Your task to perform on an android device: allow cookies in the chrome app Image 0: 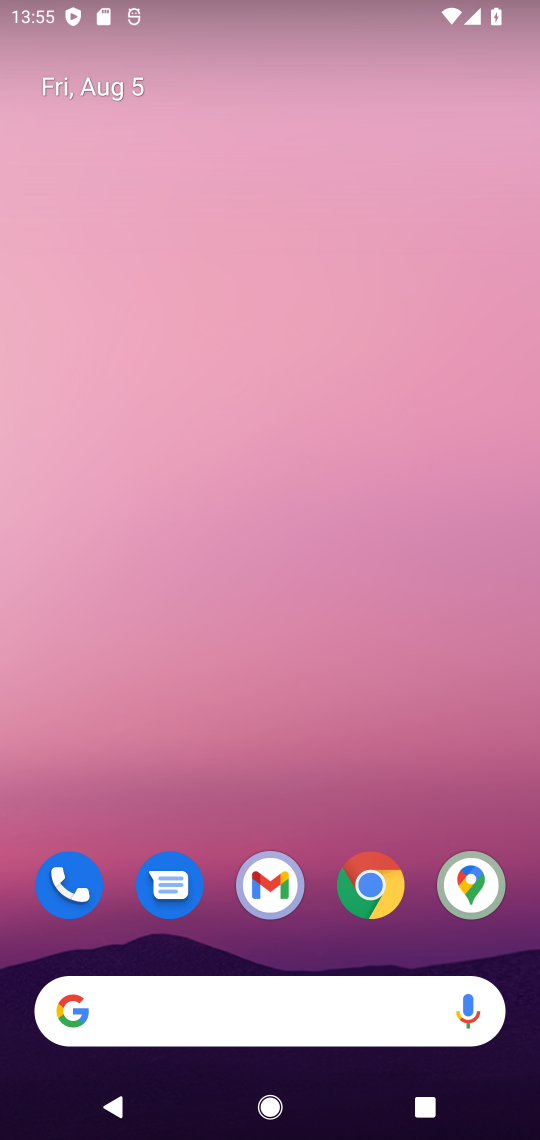
Step 0: click (374, 904)
Your task to perform on an android device: allow cookies in the chrome app Image 1: 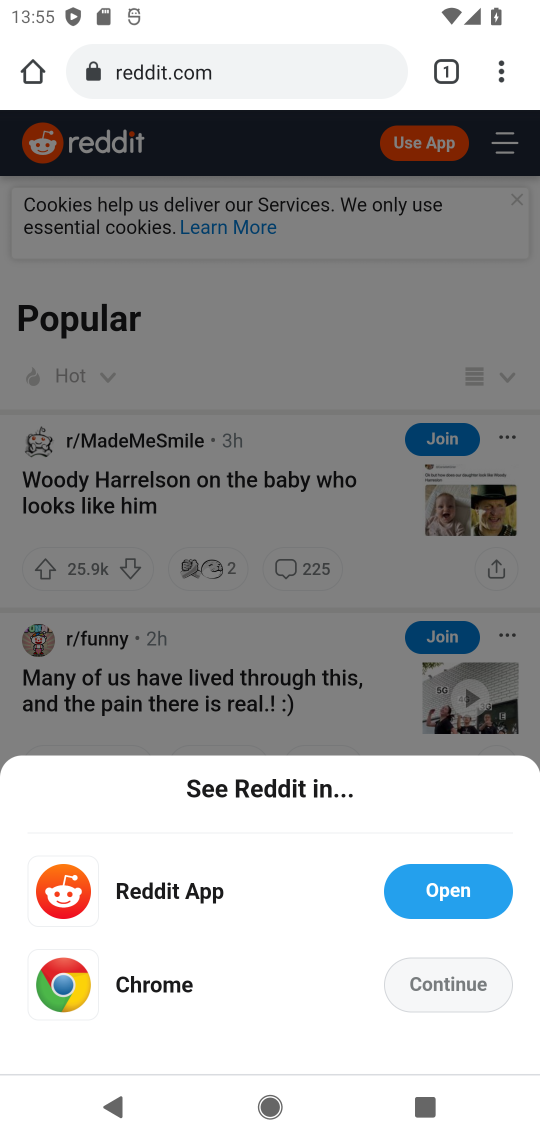
Step 1: click (429, 978)
Your task to perform on an android device: allow cookies in the chrome app Image 2: 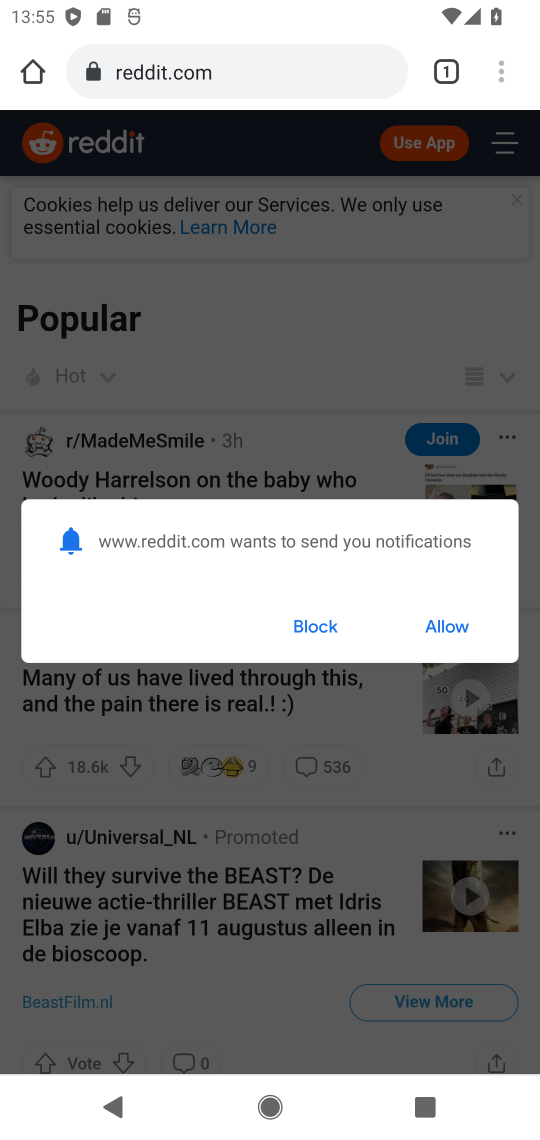
Step 2: click (288, 624)
Your task to perform on an android device: allow cookies in the chrome app Image 3: 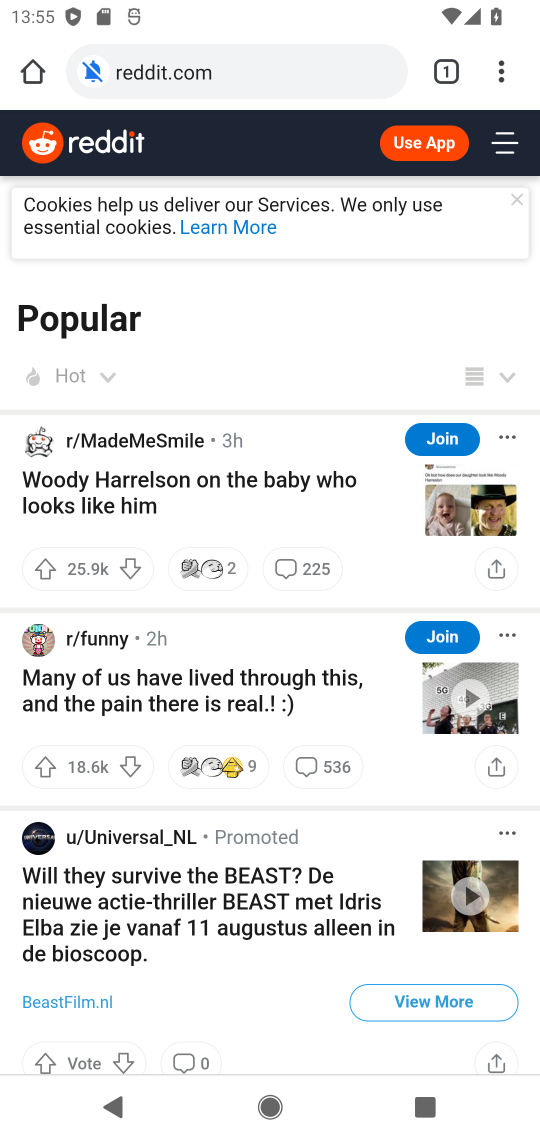
Step 3: click (499, 69)
Your task to perform on an android device: allow cookies in the chrome app Image 4: 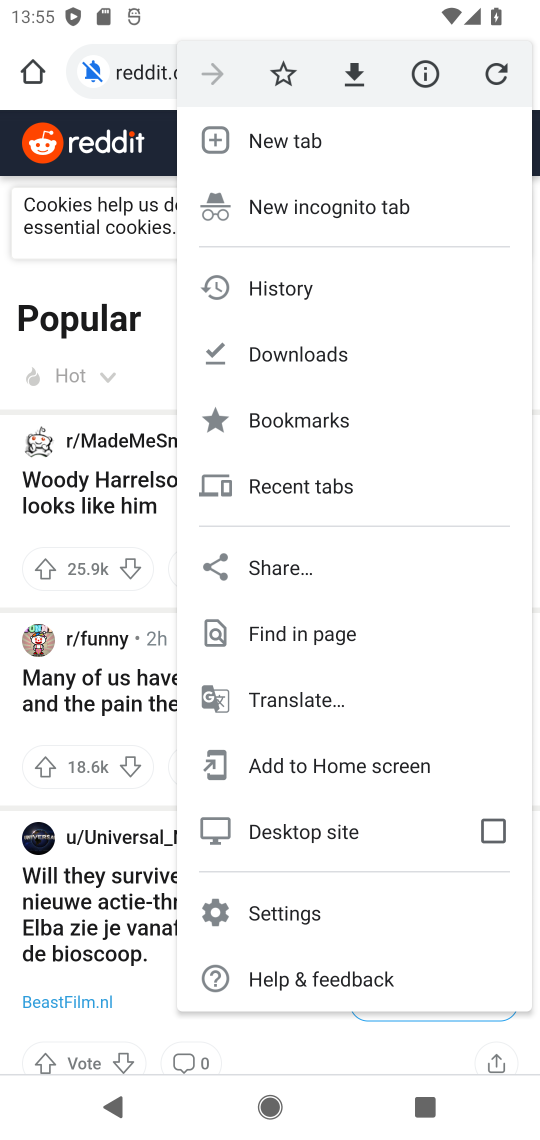
Step 4: click (280, 913)
Your task to perform on an android device: allow cookies in the chrome app Image 5: 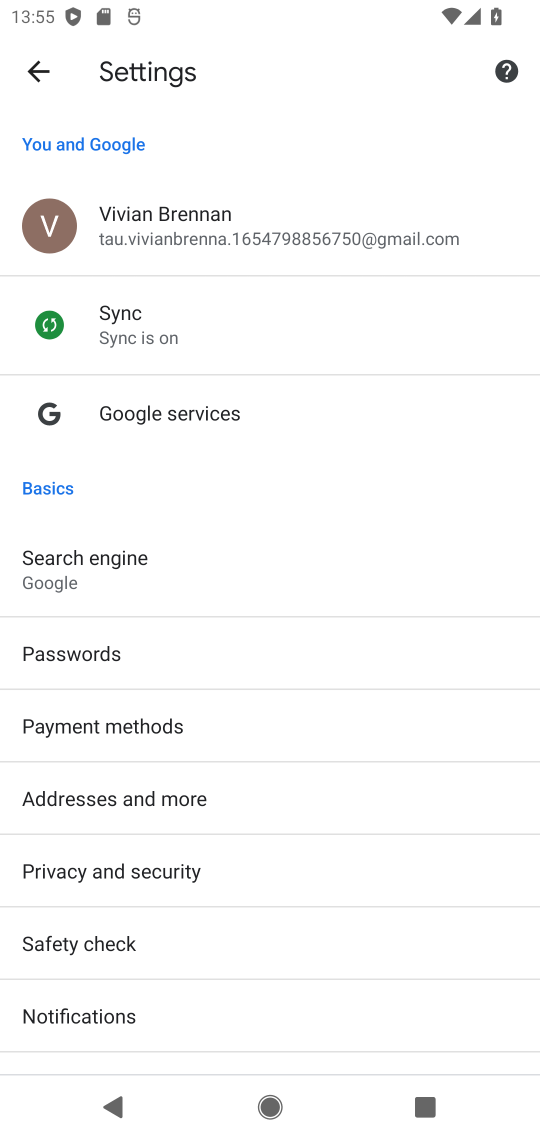
Step 5: drag from (105, 962) to (129, 502)
Your task to perform on an android device: allow cookies in the chrome app Image 6: 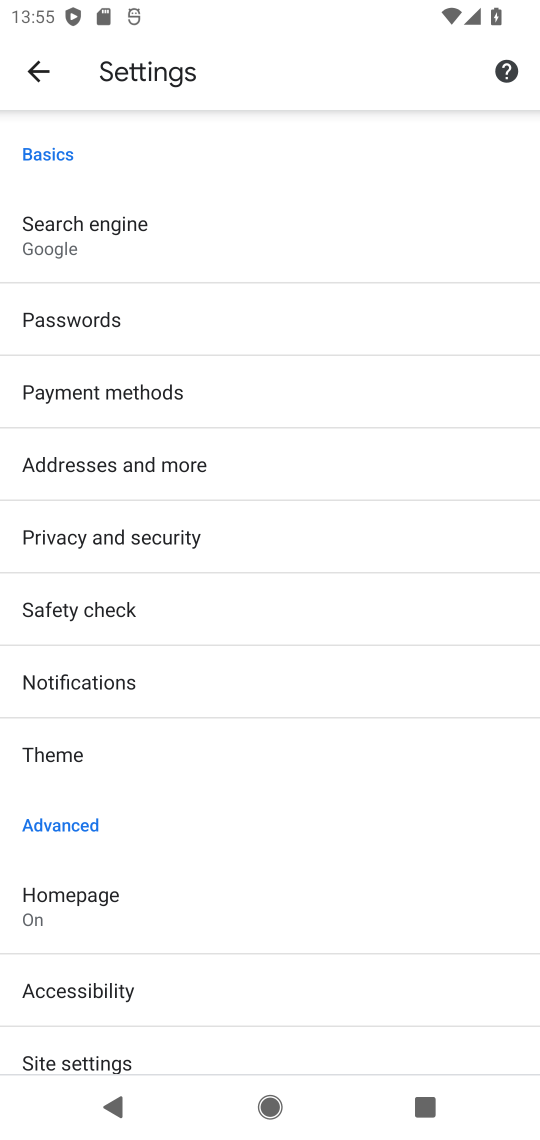
Step 6: click (61, 1060)
Your task to perform on an android device: allow cookies in the chrome app Image 7: 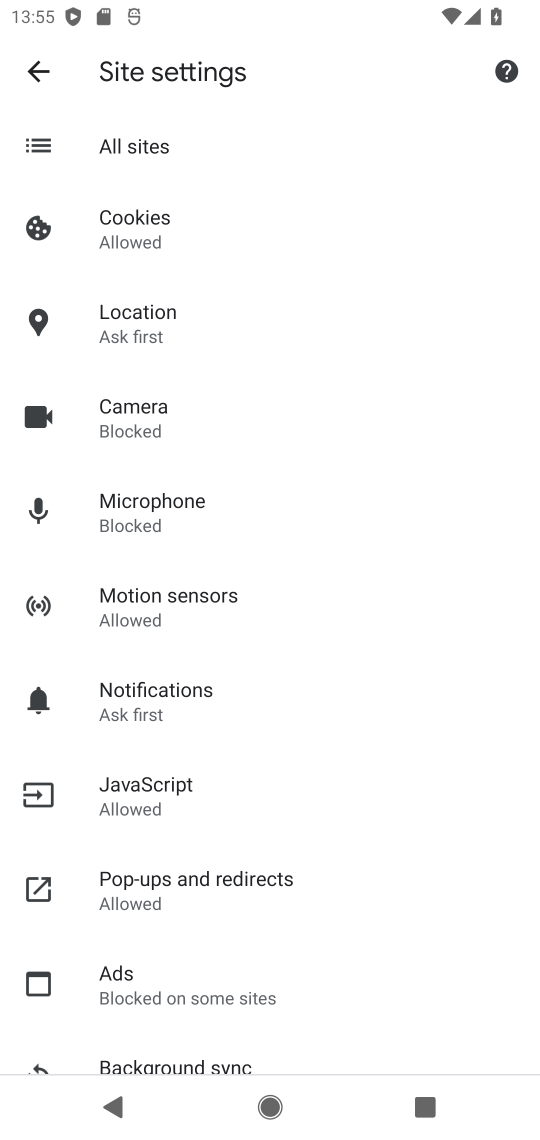
Step 7: click (117, 233)
Your task to perform on an android device: allow cookies in the chrome app Image 8: 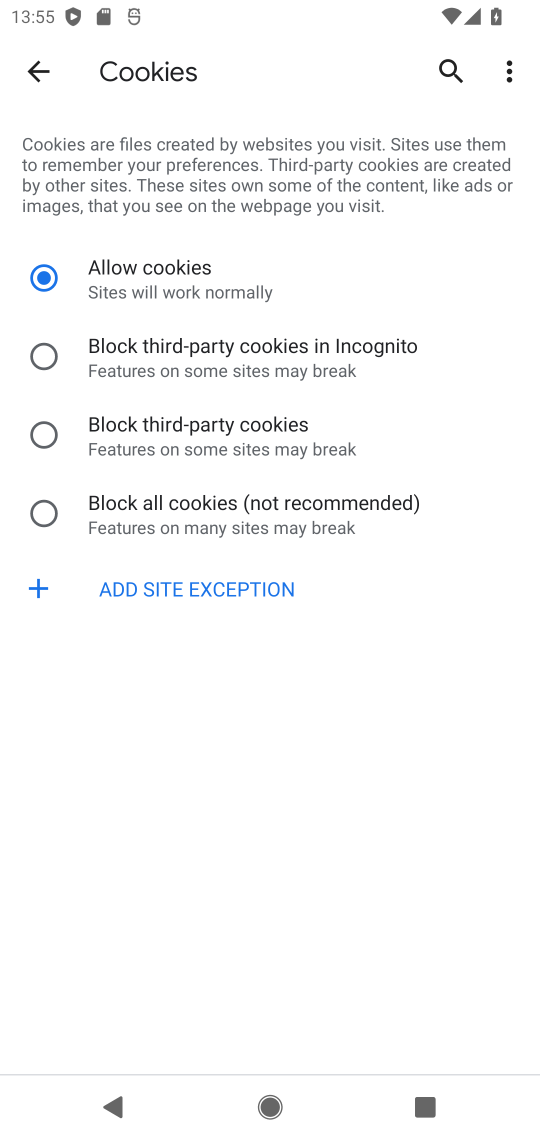
Step 8: task complete